Your task to perform on an android device: Go to Reddit.com Image 0: 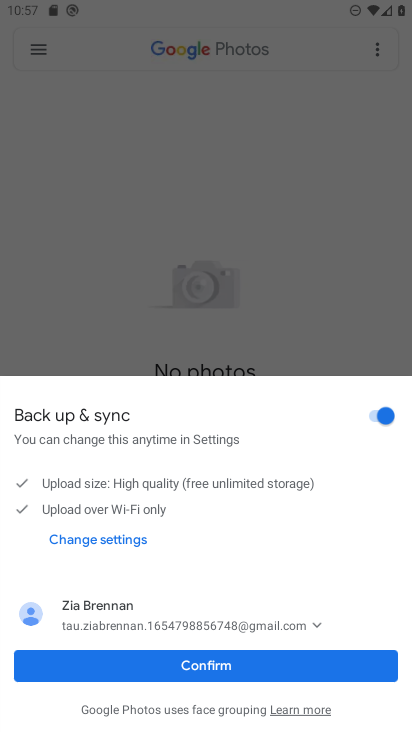
Step 0: press home button
Your task to perform on an android device: Go to Reddit.com Image 1: 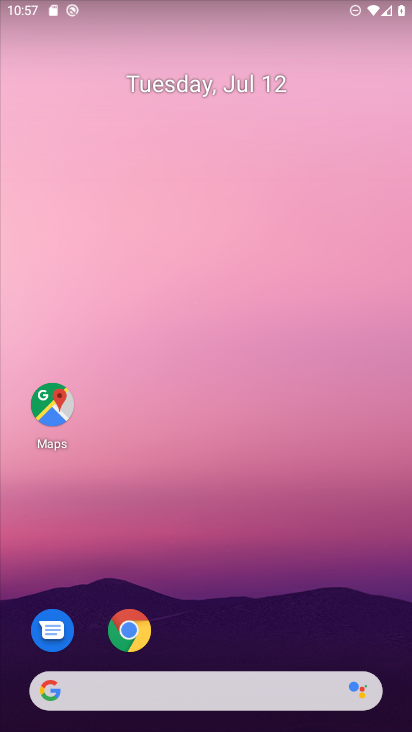
Step 1: drag from (298, 642) to (314, 88)
Your task to perform on an android device: Go to Reddit.com Image 2: 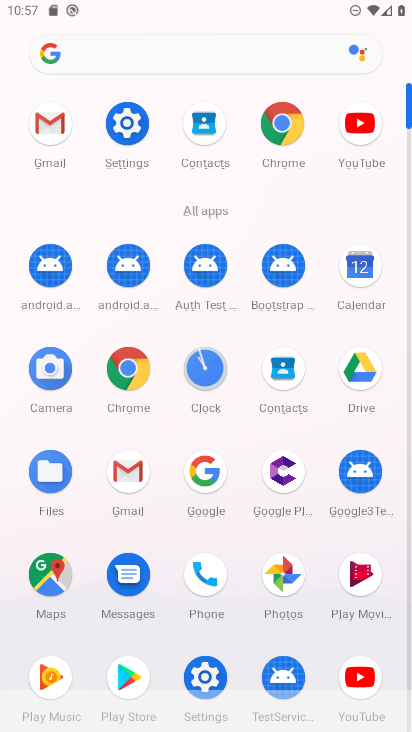
Step 2: click (280, 124)
Your task to perform on an android device: Go to Reddit.com Image 3: 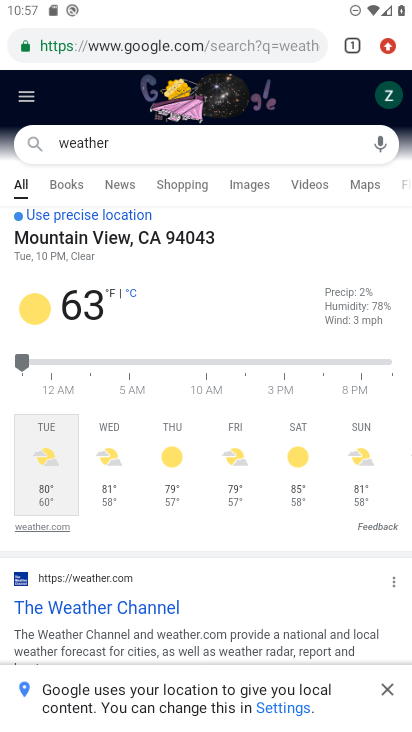
Step 3: click (209, 48)
Your task to perform on an android device: Go to Reddit.com Image 4: 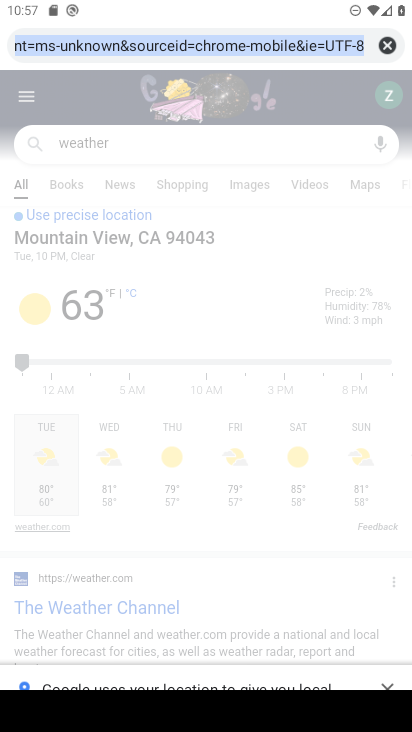
Step 4: type "reddit.com"
Your task to perform on an android device: Go to Reddit.com Image 5: 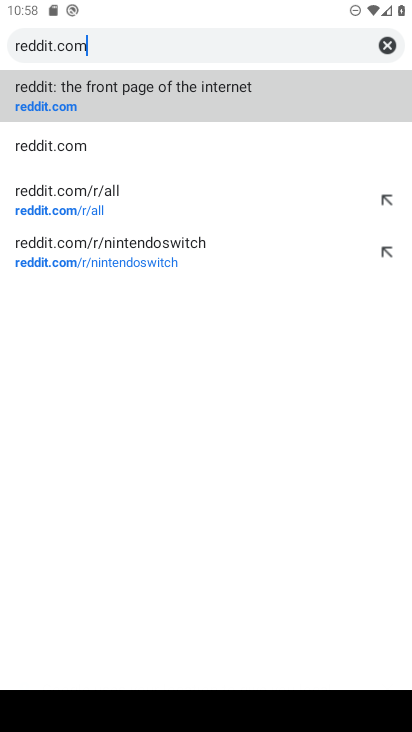
Step 5: click (62, 103)
Your task to perform on an android device: Go to Reddit.com Image 6: 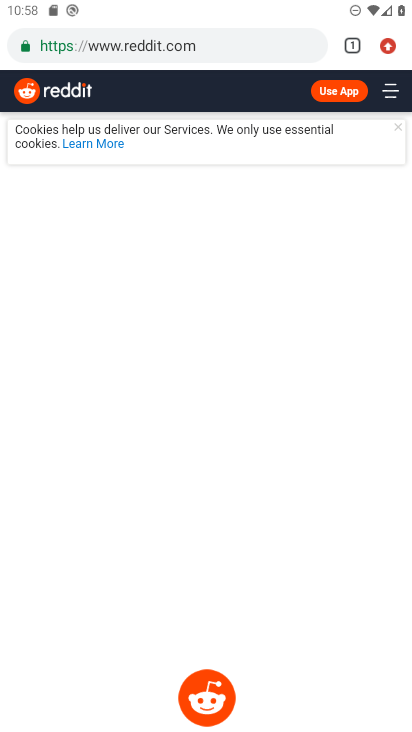
Step 6: task complete